Your task to perform on an android device: check out phone information Image 0: 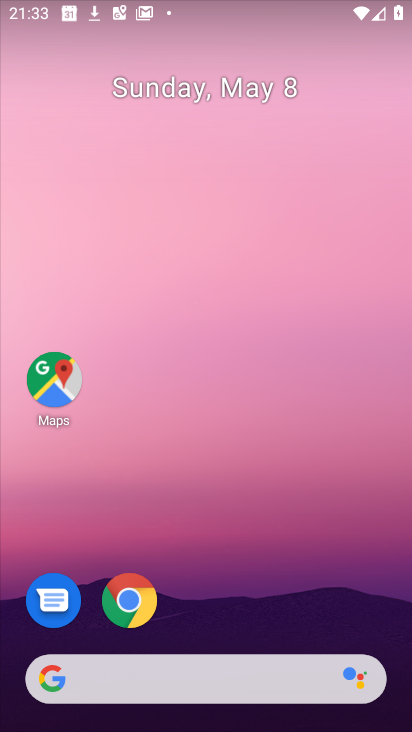
Step 0: drag from (305, 689) to (265, 296)
Your task to perform on an android device: check out phone information Image 1: 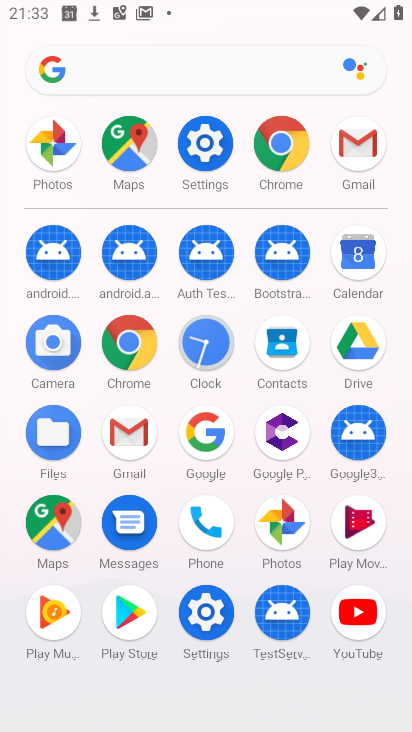
Step 1: click (196, 164)
Your task to perform on an android device: check out phone information Image 2: 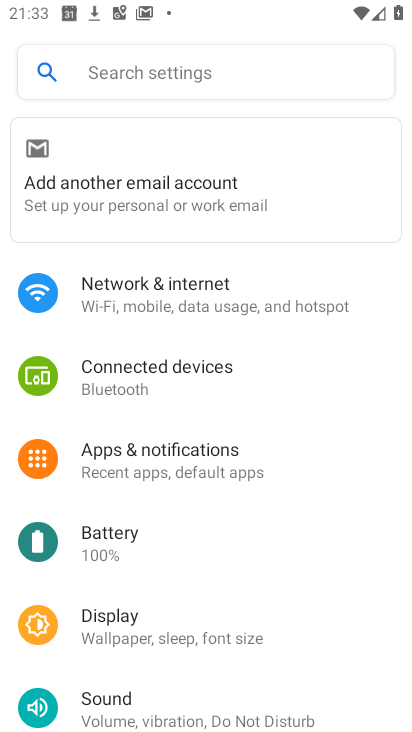
Step 2: click (173, 74)
Your task to perform on an android device: check out phone information Image 3: 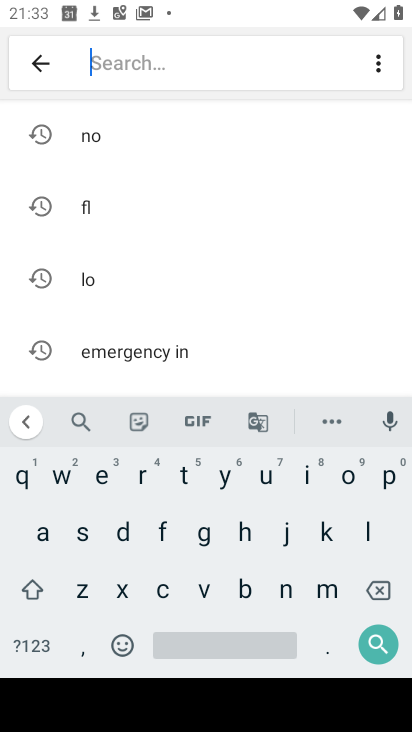
Step 3: click (40, 530)
Your task to perform on an android device: check out phone information Image 4: 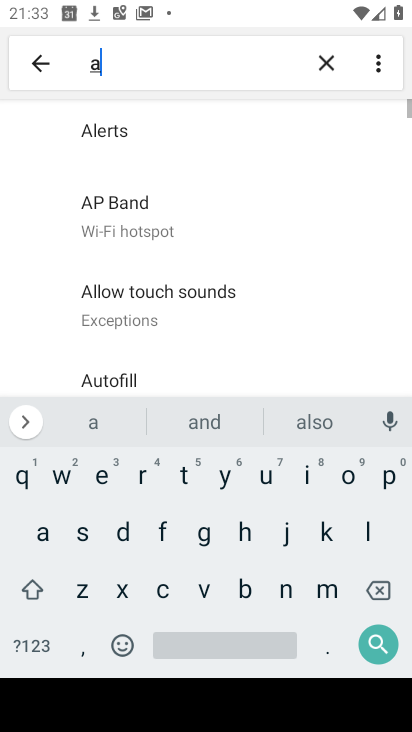
Step 4: click (239, 591)
Your task to perform on an android device: check out phone information Image 5: 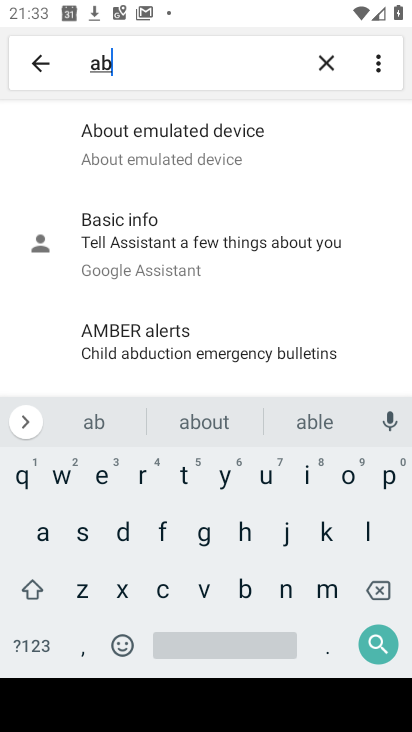
Step 5: click (220, 155)
Your task to perform on an android device: check out phone information Image 6: 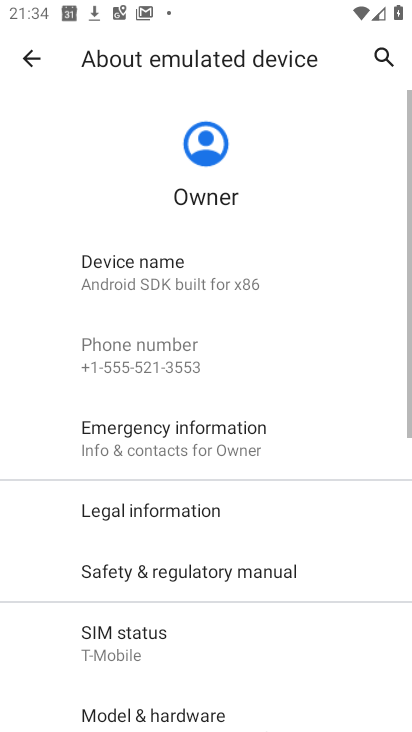
Step 6: click (221, 454)
Your task to perform on an android device: check out phone information Image 7: 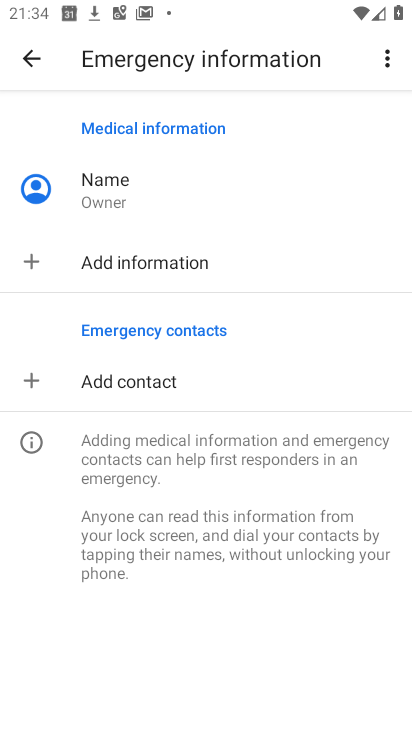
Step 7: task complete